Your task to perform on an android device: Open Google Maps Image 0: 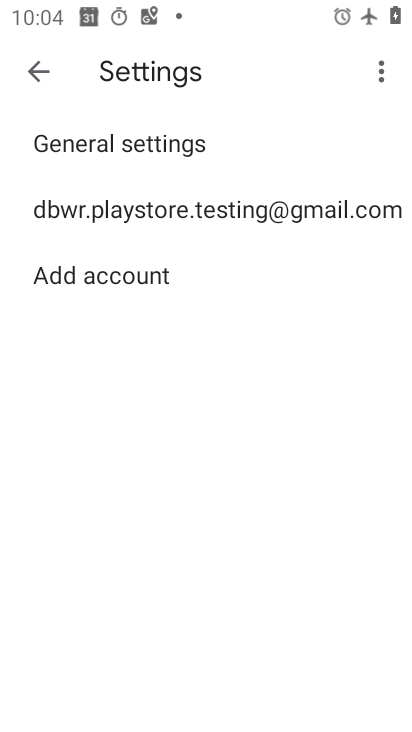
Step 0: press home button
Your task to perform on an android device: Open Google Maps Image 1: 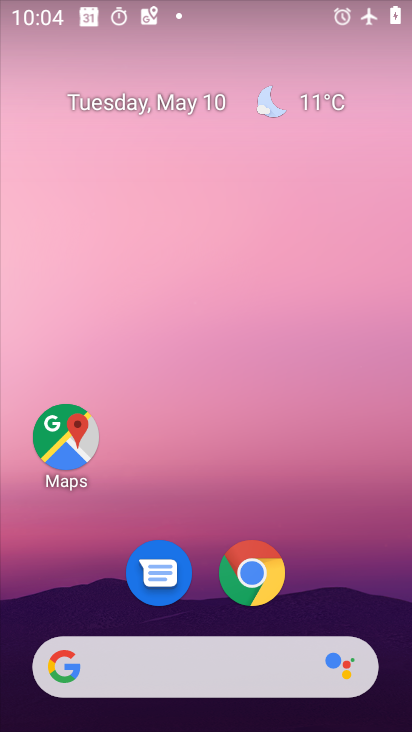
Step 1: click (58, 431)
Your task to perform on an android device: Open Google Maps Image 2: 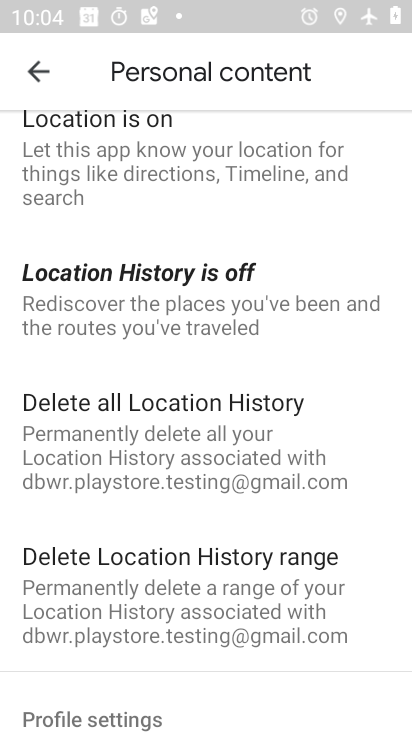
Step 2: click (46, 63)
Your task to perform on an android device: Open Google Maps Image 3: 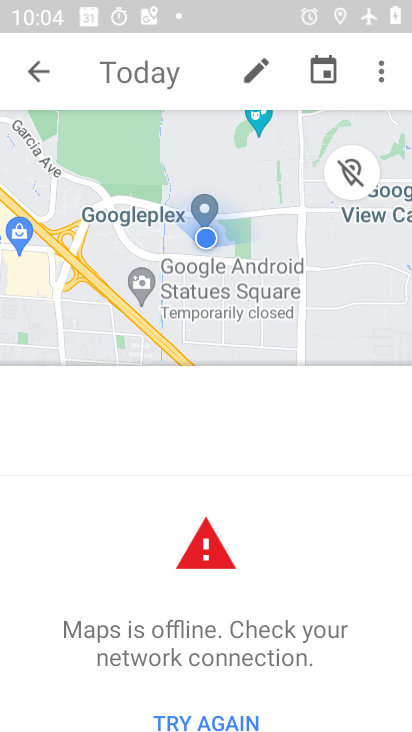
Step 3: click (47, 70)
Your task to perform on an android device: Open Google Maps Image 4: 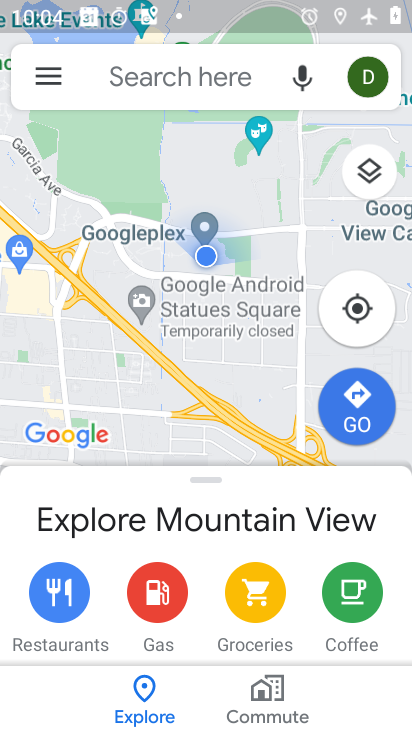
Step 4: task complete